Your task to perform on an android device: Show me the alarms in the clock app Image 0: 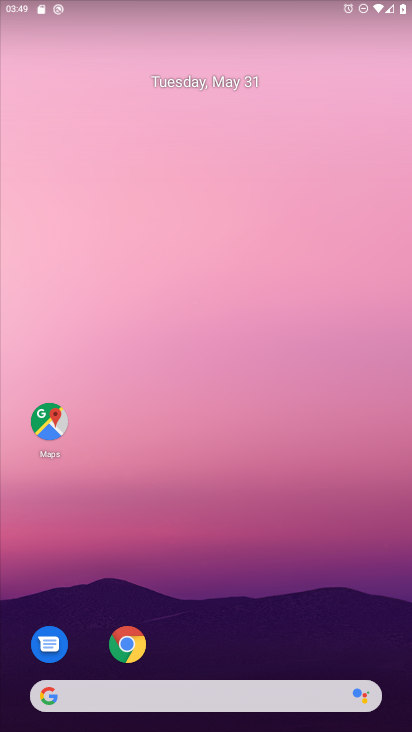
Step 0: drag from (327, 673) to (217, 241)
Your task to perform on an android device: Show me the alarms in the clock app Image 1: 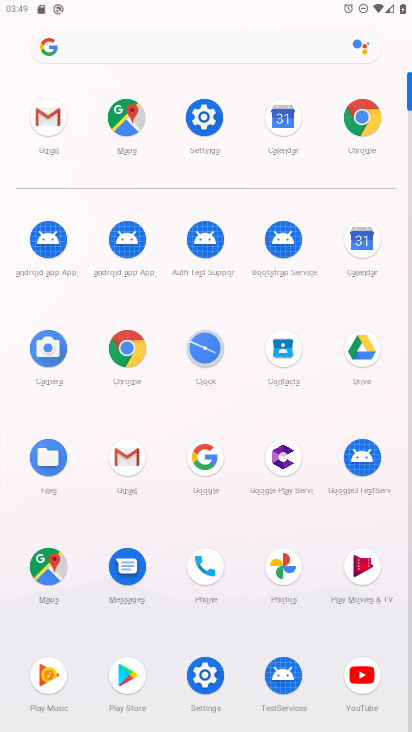
Step 1: click (203, 347)
Your task to perform on an android device: Show me the alarms in the clock app Image 2: 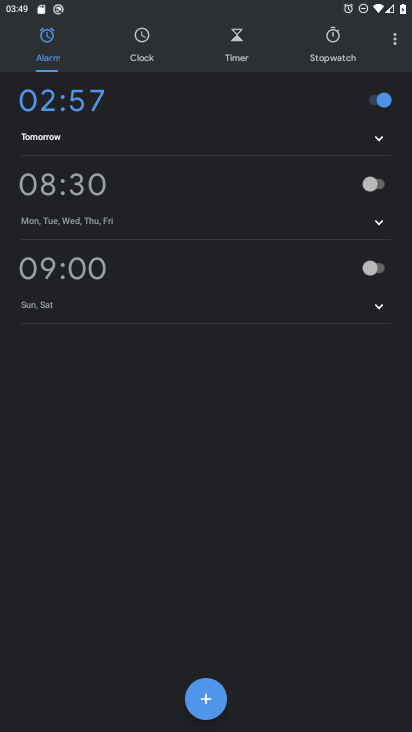
Step 2: task complete